Your task to perform on an android device: all mails in gmail Image 0: 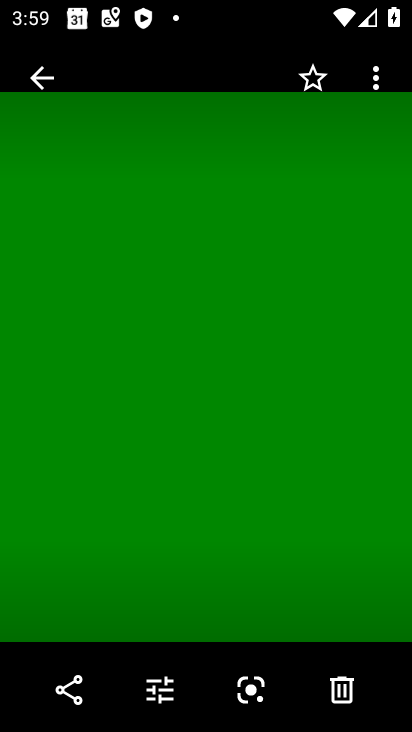
Step 0: press home button
Your task to perform on an android device: all mails in gmail Image 1: 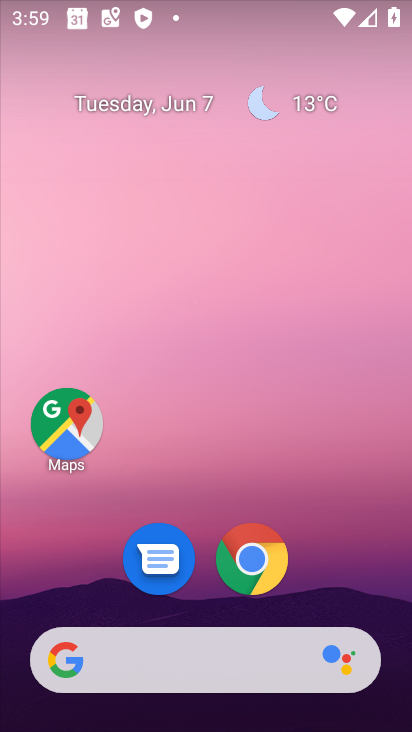
Step 1: drag from (331, 579) to (287, 21)
Your task to perform on an android device: all mails in gmail Image 2: 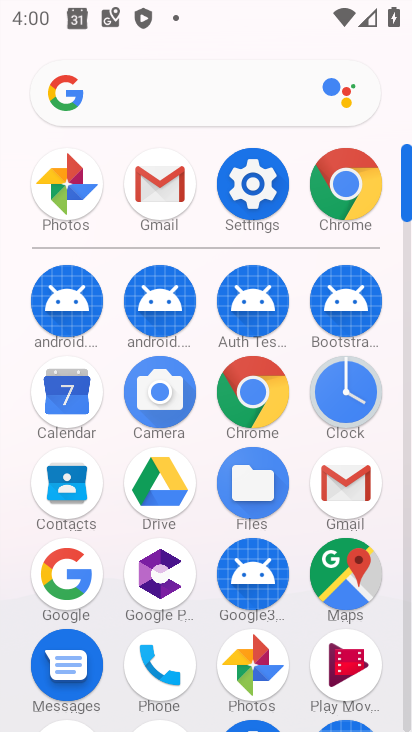
Step 2: click (156, 178)
Your task to perform on an android device: all mails in gmail Image 3: 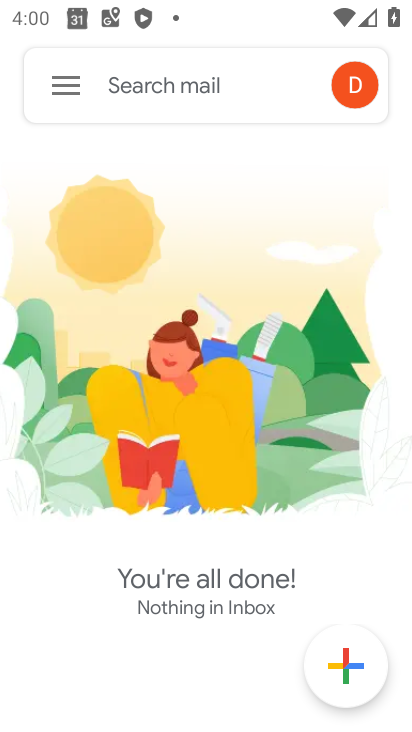
Step 3: click (61, 89)
Your task to perform on an android device: all mails in gmail Image 4: 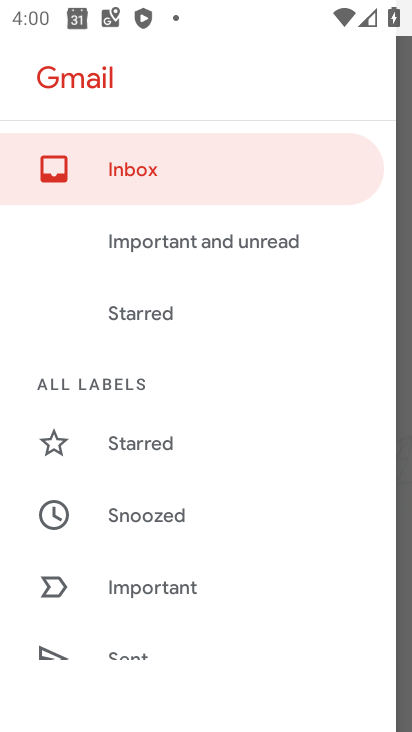
Step 4: drag from (119, 349) to (157, 199)
Your task to perform on an android device: all mails in gmail Image 5: 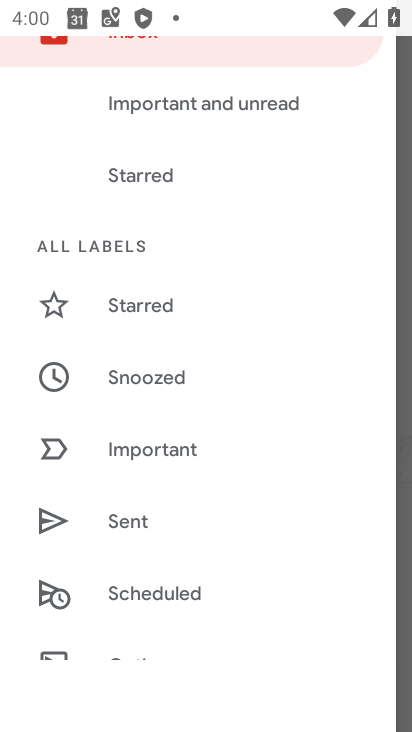
Step 5: drag from (125, 414) to (151, 300)
Your task to perform on an android device: all mails in gmail Image 6: 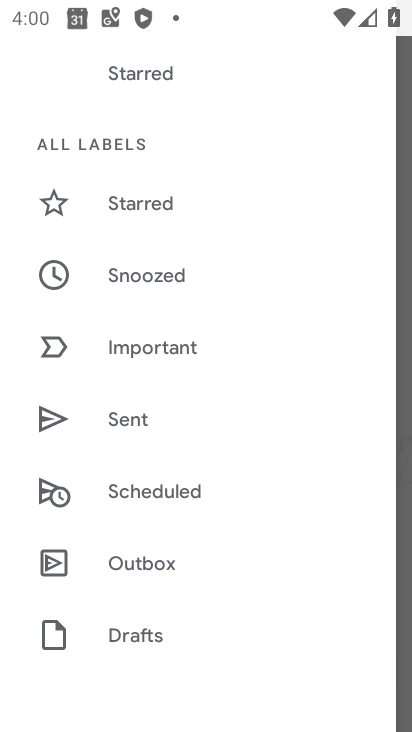
Step 6: drag from (127, 391) to (142, 277)
Your task to perform on an android device: all mails in gmail Image 7: 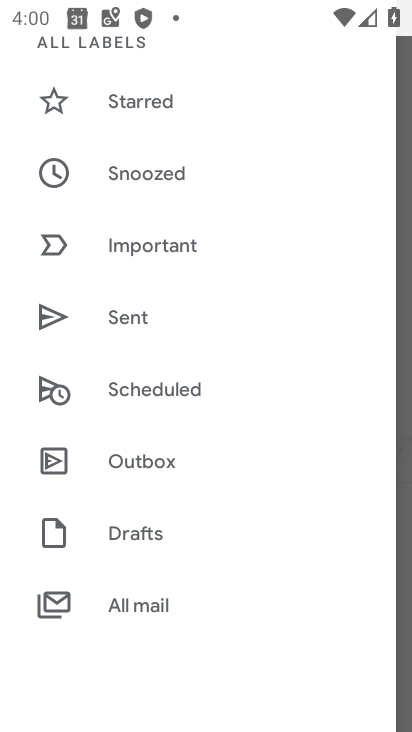
Step 7: drag from (122, 427) to (176, 325)
Your task to perform on an android device: all mails in gmail Image 8: 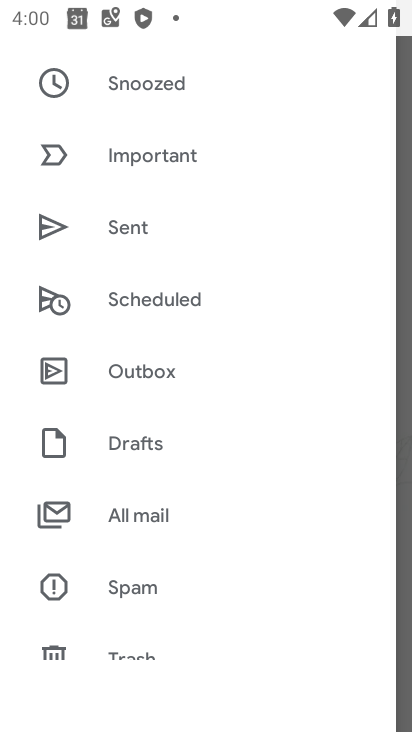
Step 8: click (165, 523)
Your task to perform on an android device: all mails in gmail Image 9: 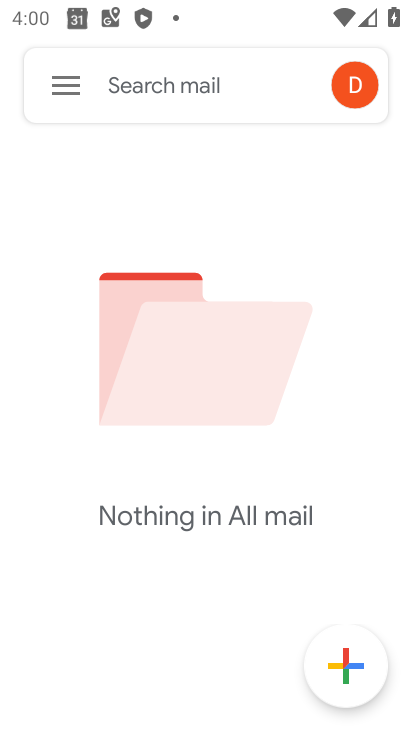
Step 9: task complete